Your task to perform on an android device: turn off wifi Image 0: 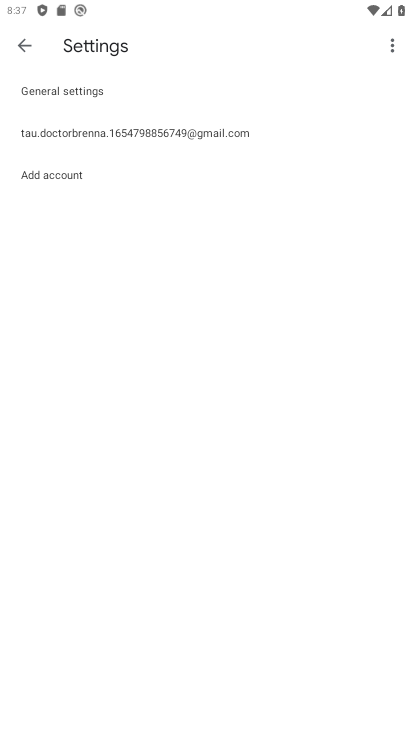
Step 0: press home button
Your task to perform on an android device: turn off wifi Image 1: 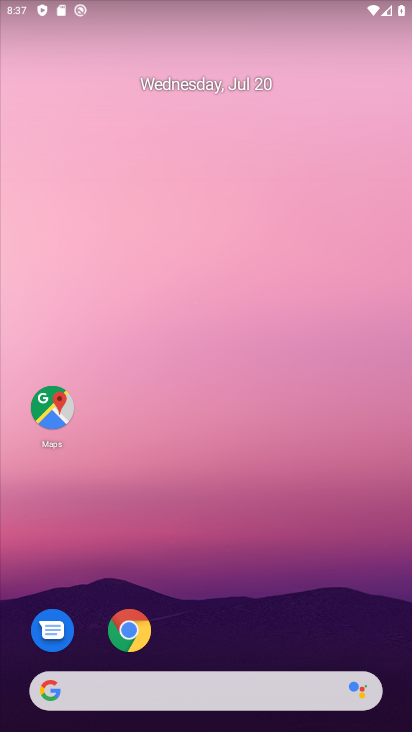
Step 1: drag from (219, 552) to (215, 6)
Your task to perform on an android device: turn off wifi Image 2: 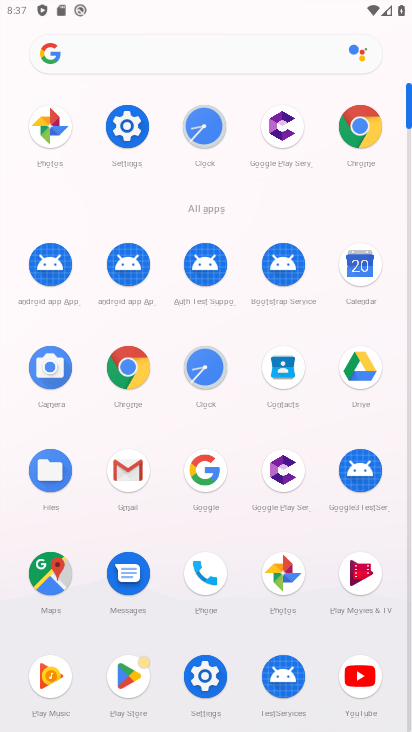
Step 2: click (136, 140)
Your task to perform on an android device: turn off wifi Image 3: 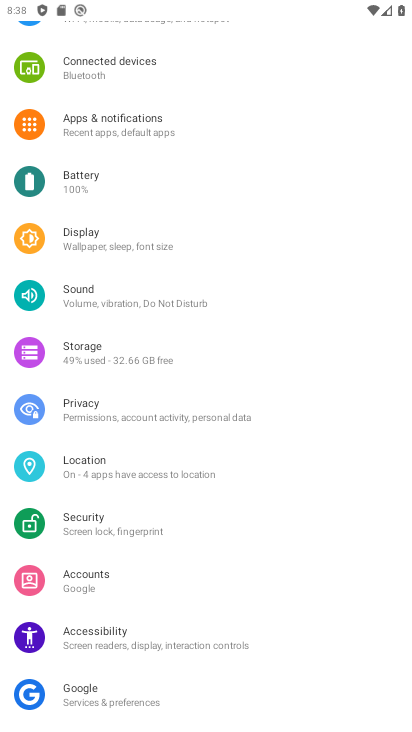
Step 3: drag from (136, 150) to (145, 536)
Your task to perform on an android device: turn off wifi Image 4: 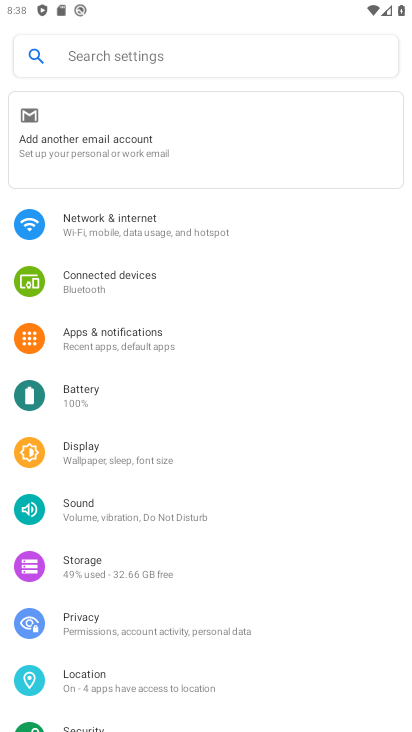
Step 4: click (97, 226)
Your task to perform on an android device: turn off wifi Image 5: 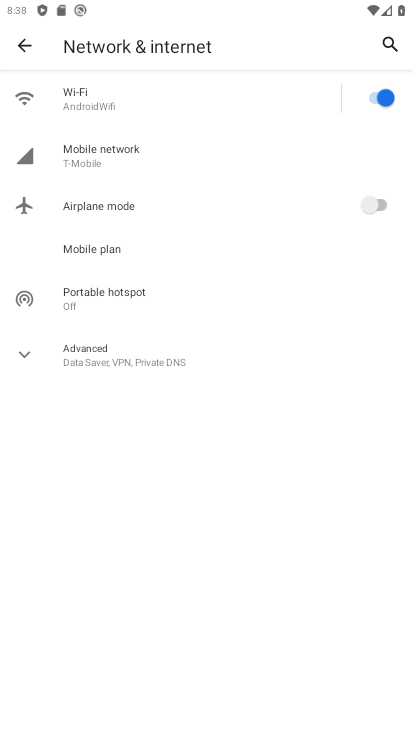
Step 5: click (304, 73)
Your task to perform on an android device: turn off wifi Image 6: 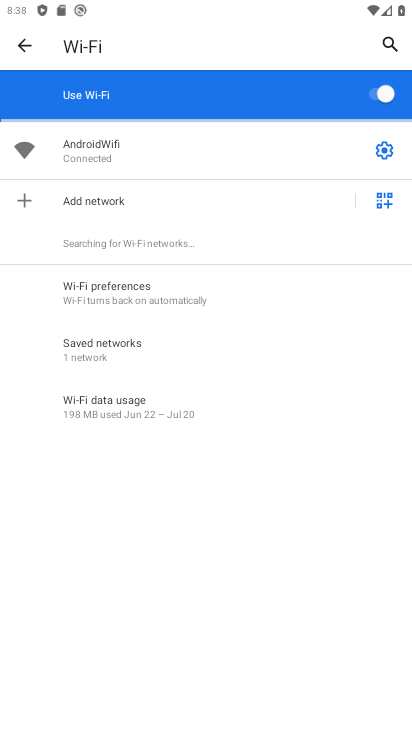
Step 6: click (363, 91)
Your task to perform on an android device: turn off wifi Image 7: 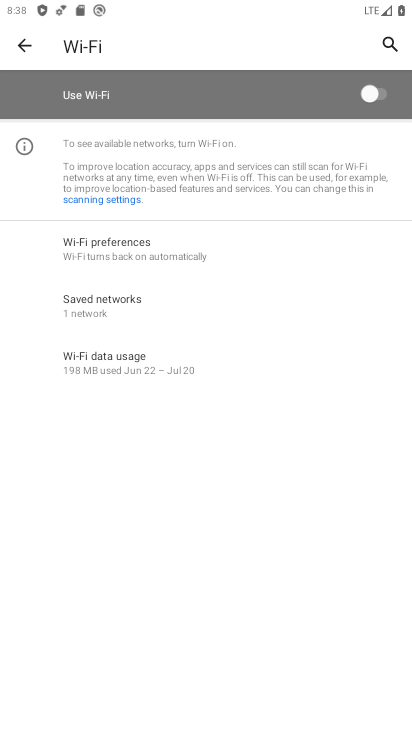
Step 7: task complete